Your task to perform on an android device: set the stopwatch Image 0: 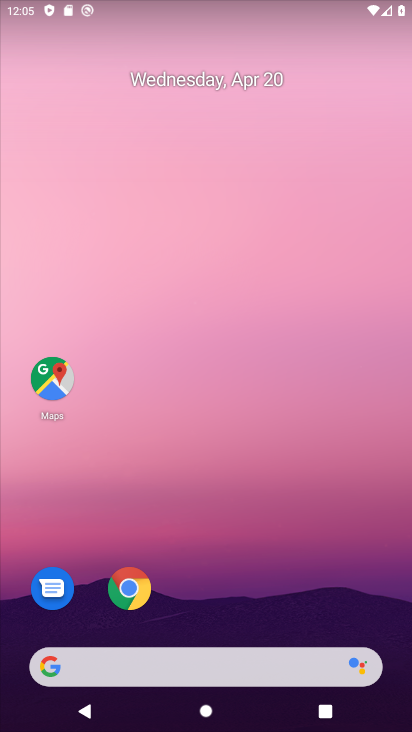
Step 0: drag from (257, 634) to (231, 0)
Your task to perform on an android device: set the stopwatch Image 1: 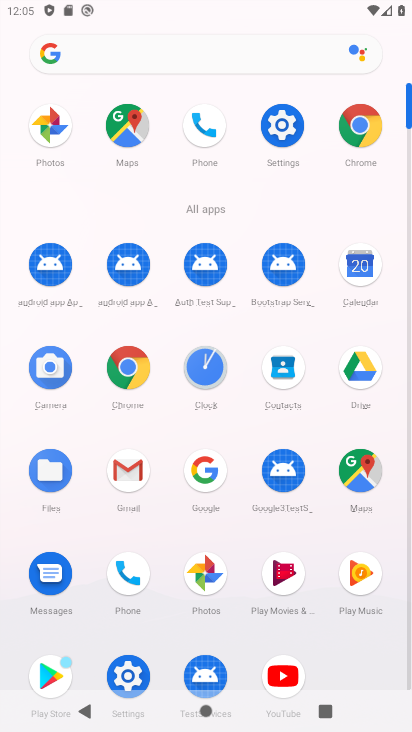
Step 1: click (206, 384)
Your task to perform on an android device: set the stopwatch Image 2: 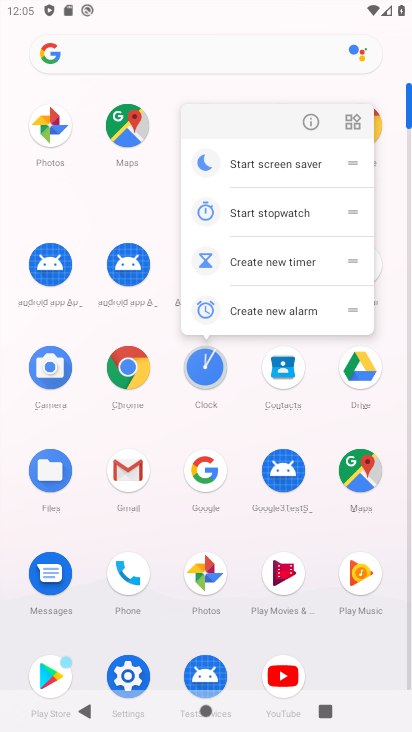
Step 2: click (210, 379)
Your task to perform on an android device: set the stopwatch Image 3: 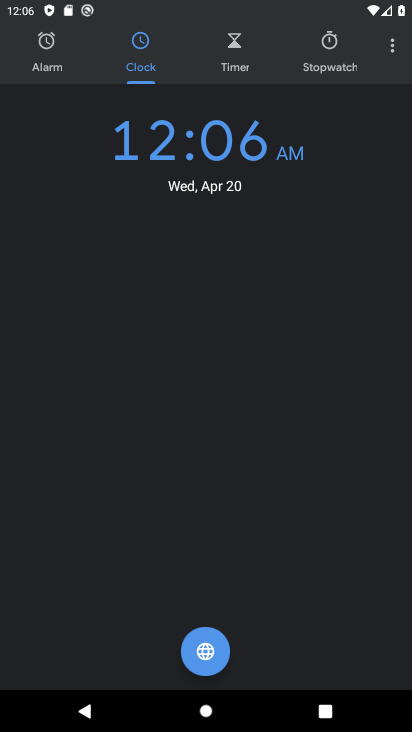
Step 3: click (320, 58)
Your task to perform on an android device: set the stopwatch Image 4: 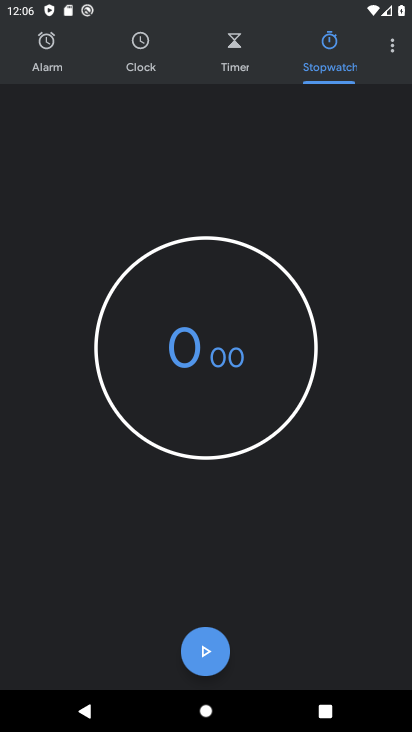
Step 4: click (219, 651)
Your task to perform on an android device: set the stopwatch Image 5: 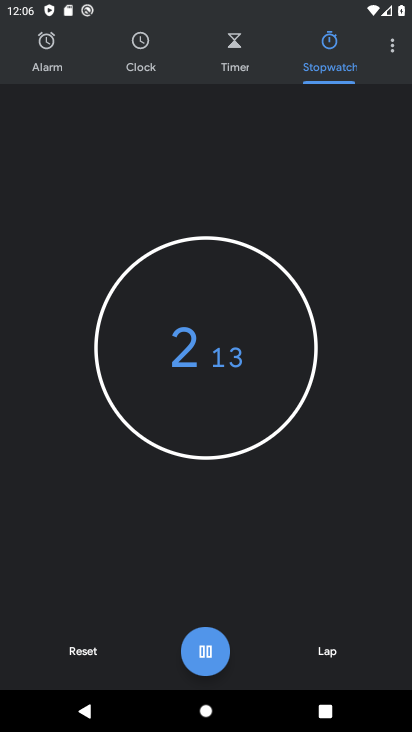
Step 5: click (217, 651)
Your task to perform on an android device: set the stopwatch Image 6: 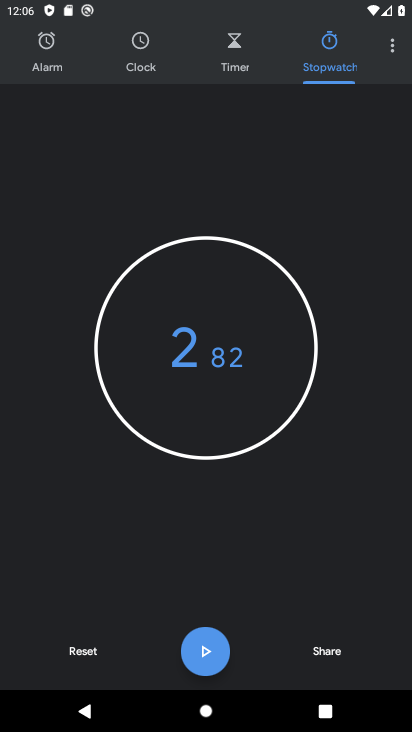
Step 6: task complete